Your task to perform on an android device: turn off priority inbox in the gmail app Image 0: 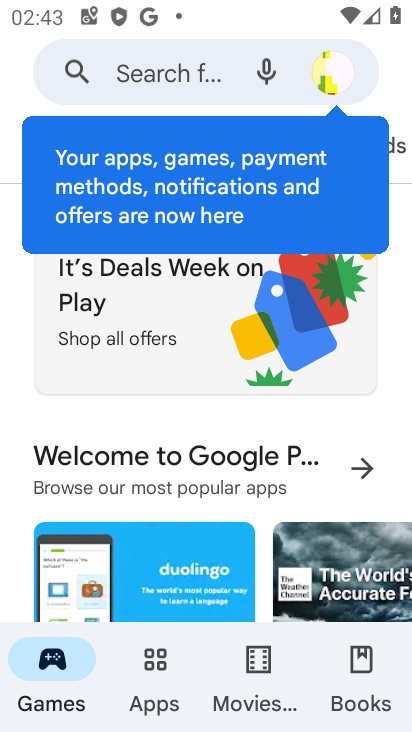
Step 0: press home button
Your task to perform on an android device: turn off priority inbox in the gmail app Image 1: 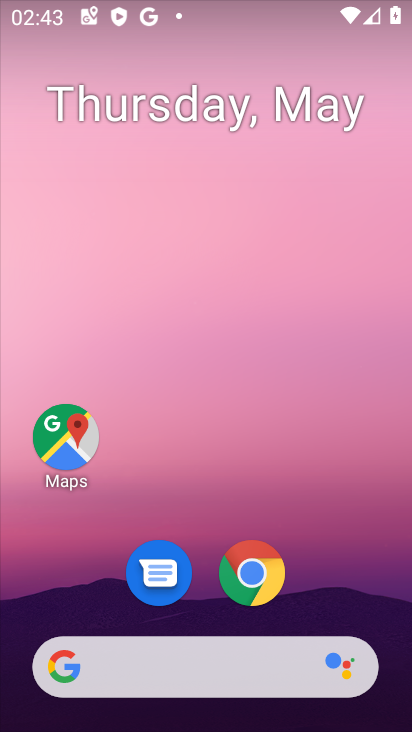
Step 1: drag from (331, 525) to (341, 320)
Your task to perform on an android device: turn off priority inbox in the gmail app Image 2: 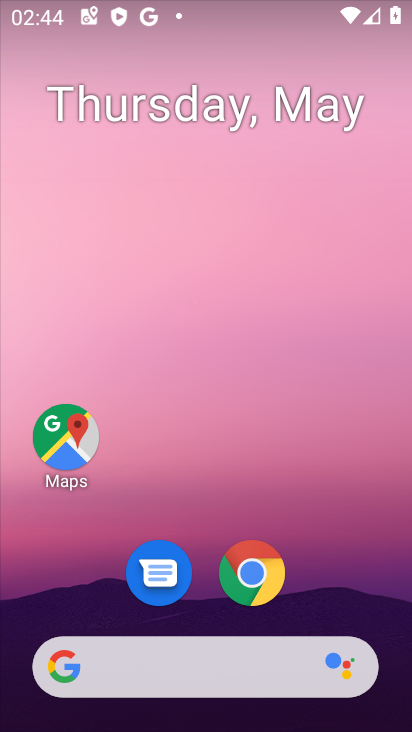
Step 2: drag from (298, 535) to (305, 204)
Your task to perform on an android device: turn off priority inbox in the gmail app Image 3: 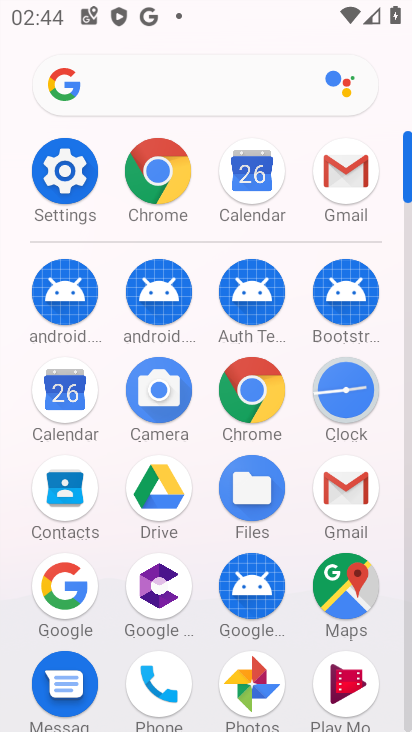
Step 3: click (339, 489)
Your task to perform on an android device: turn off priority inbox in the gmail app Image 4: 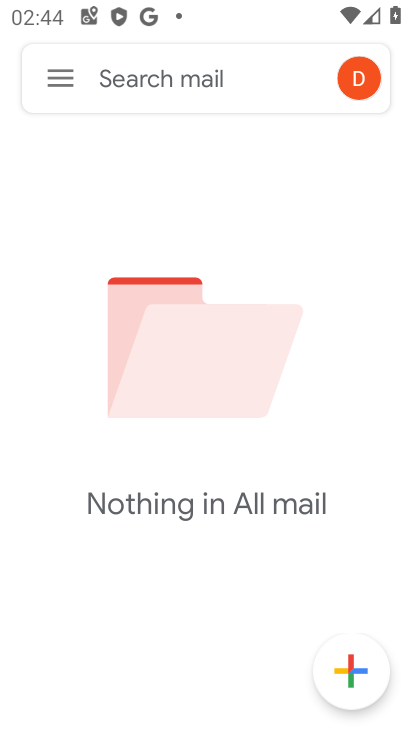
Step 4: click (62, 67)
Your task to perform on an android device: turn off priority inbox in the gmail app Image 5: 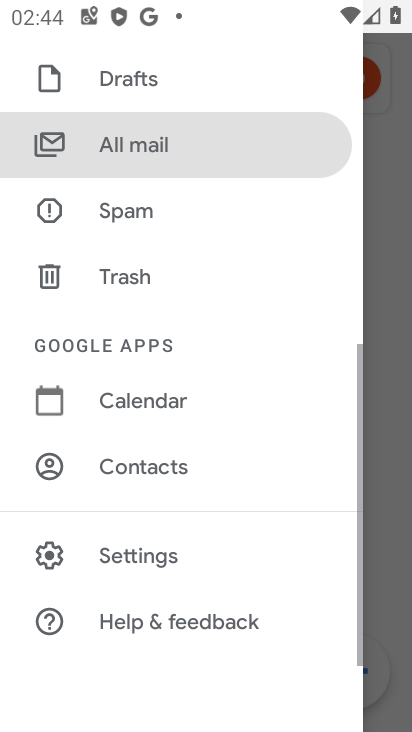
Step 5: click (146, 547)
Your task to perform on an android device: turn off priority inbox in the gmail app Image 6: 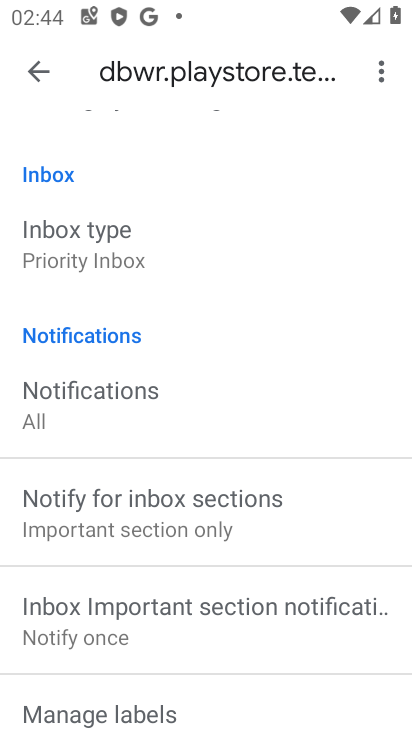
Step 6: click (98, 252)
Your task to perform on an android device: turn off priority inbox in the gmail app Image 7: 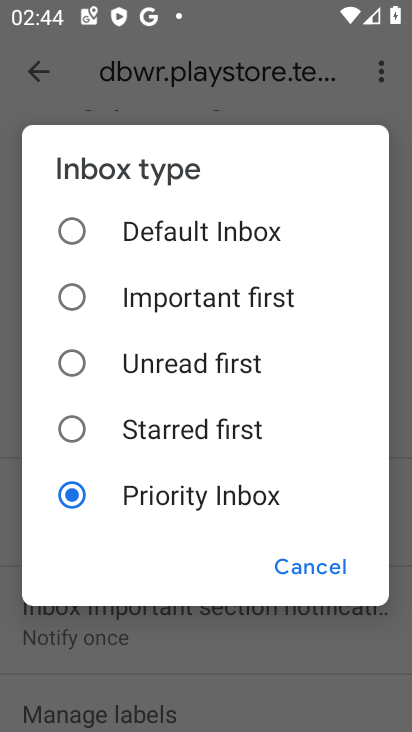
Step 7: click (131, 239)
Your task to perform on an android device: turn off priority inbox in the gmail app Image 8: 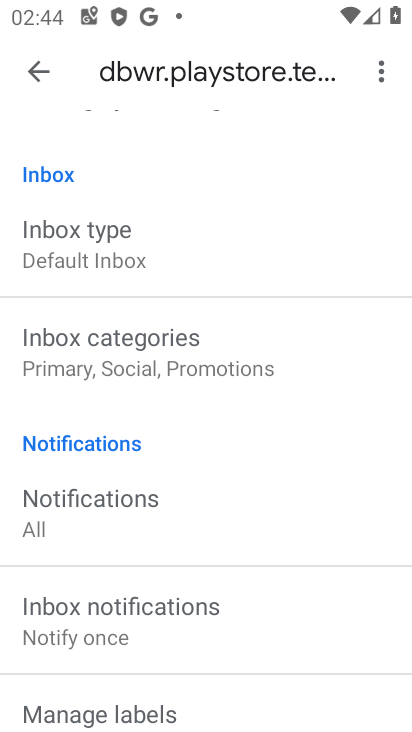
Step 8: task complete